Your task to perform on an android device: check google app version Image 0: 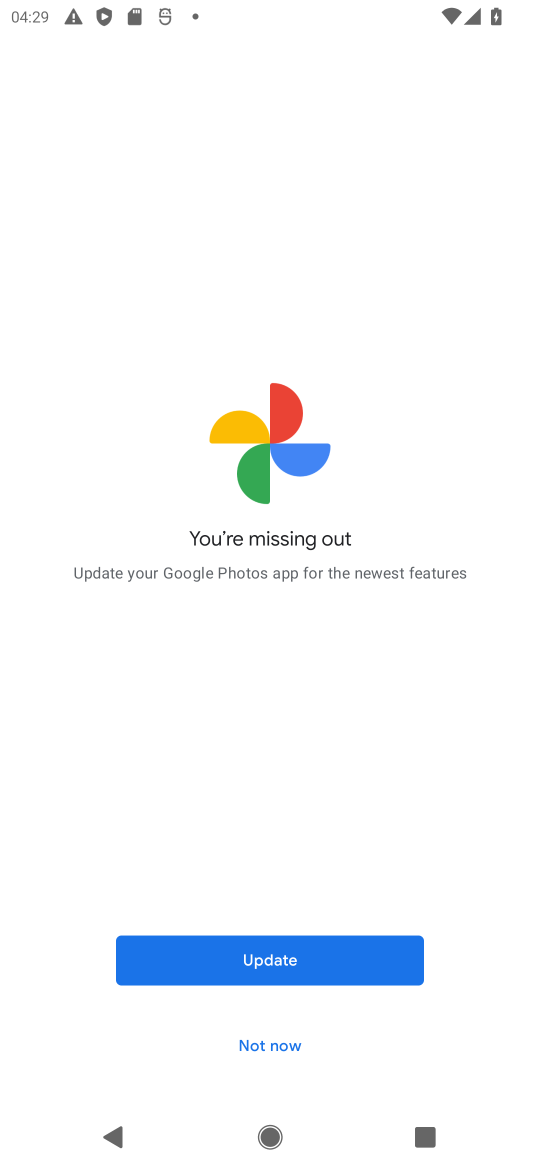
Step 0: press back button
Your task to perform on an android device: check google app version Image 1: 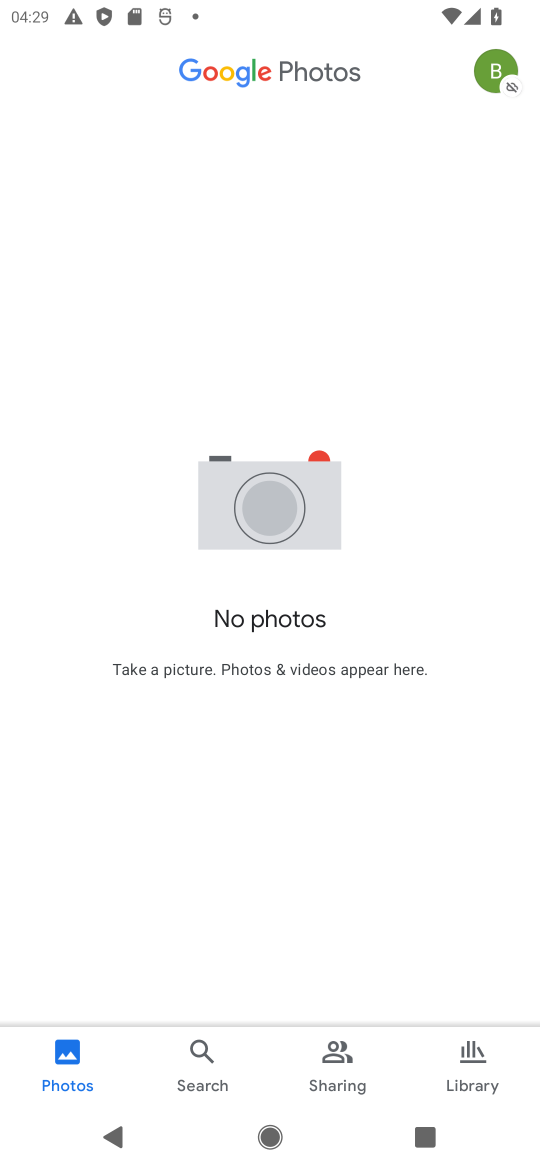
Step 1: press home button
Your task to perform on an android device: check google app version Image 2: 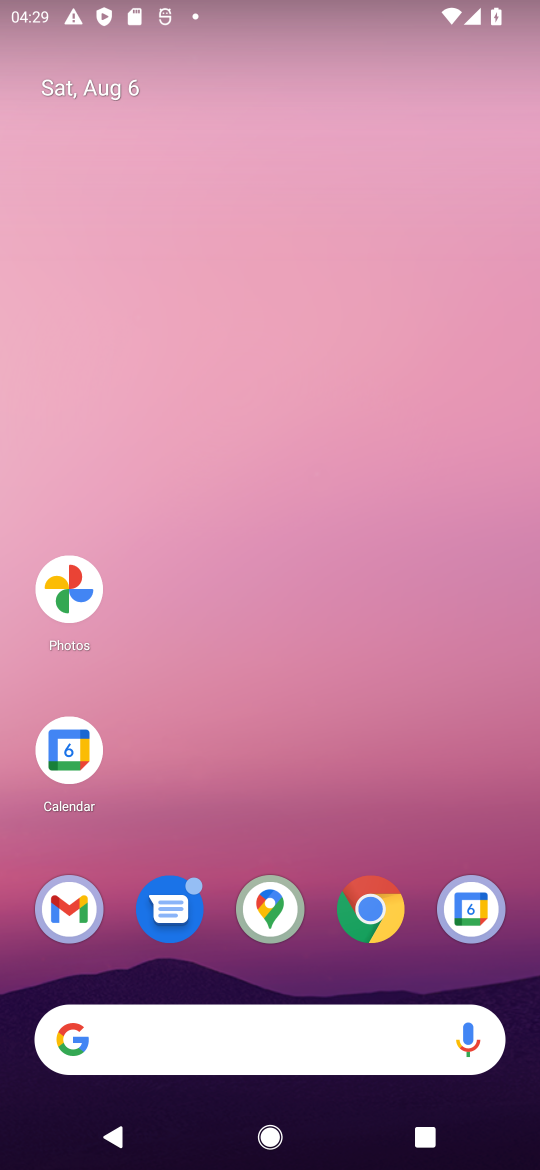
Step 2: click (66, 1031)
Your task to perform on an android device: check google app version Image 3: 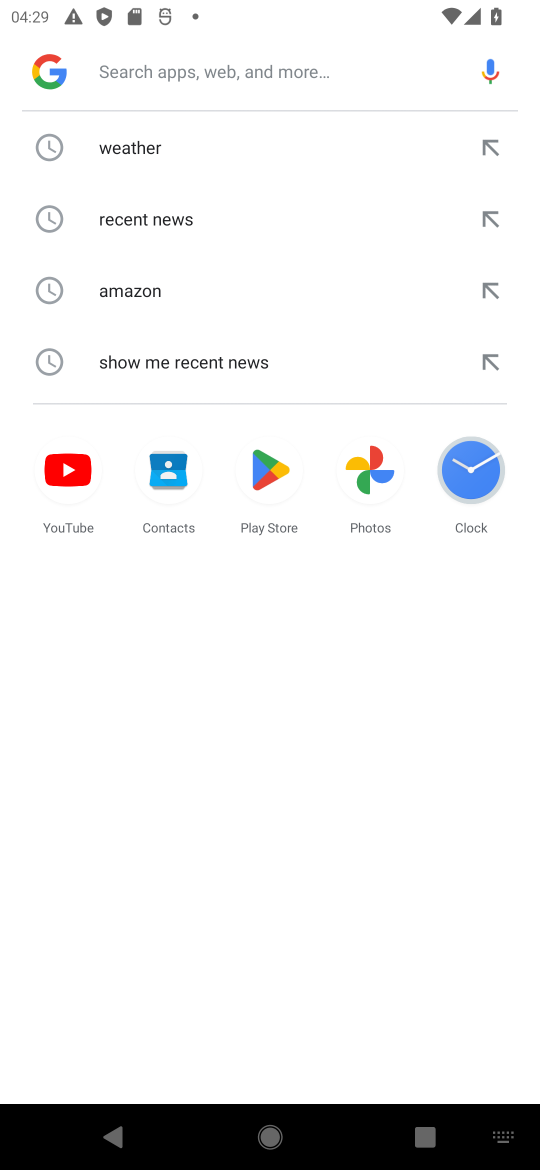
Step 3: click (46, 74)
Your task to perform on an android device: check google app version Image 4: 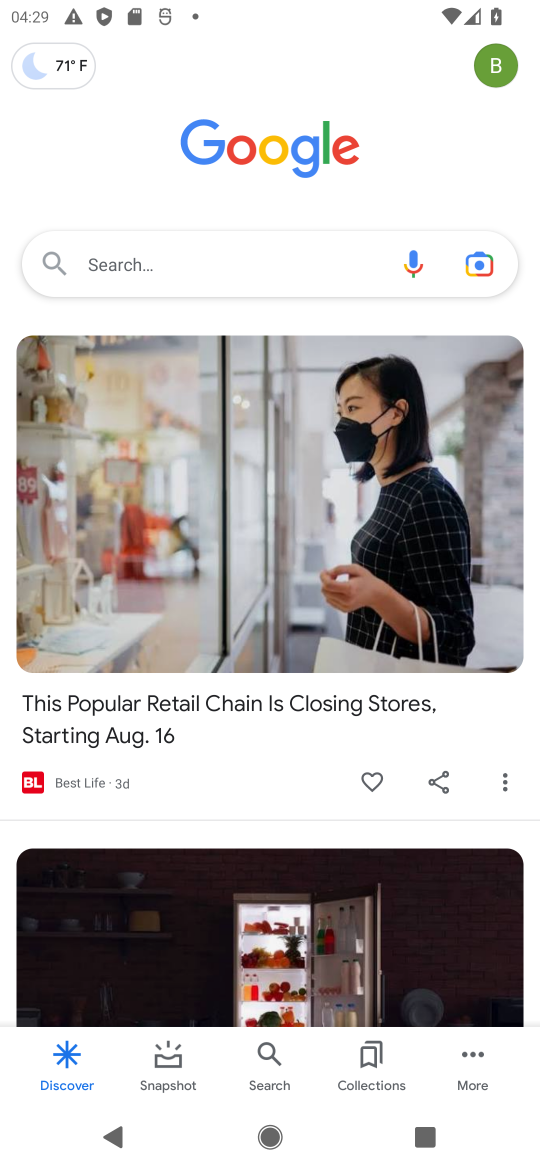
Step 4: click (475, 1050)
Your task to perform on an android device: check google app version Image 5: 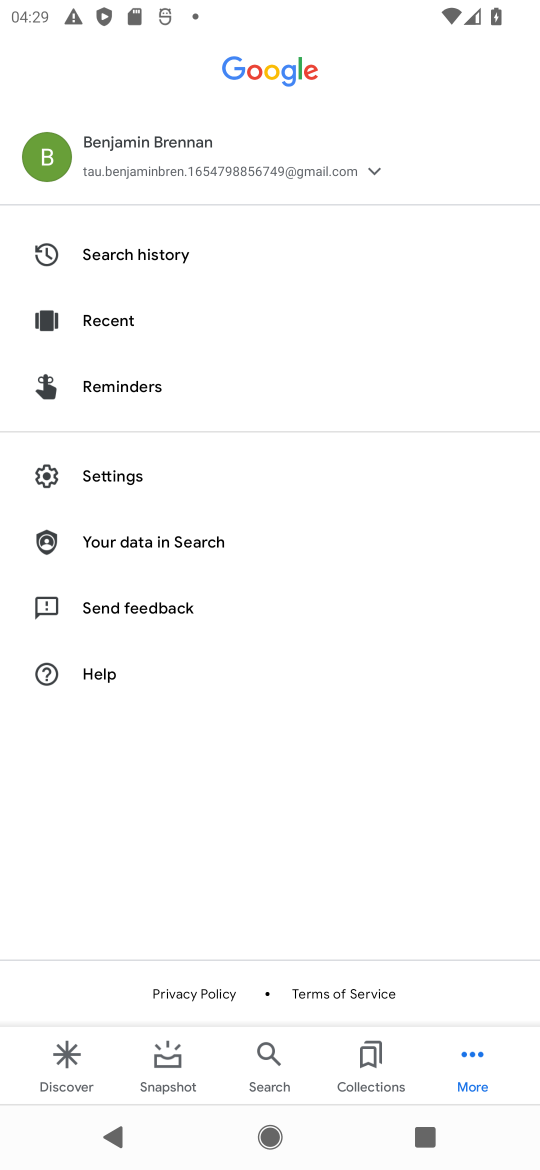
Step 5: click (108, 477)
Your task to perform on an android device: check google app version Image 6: 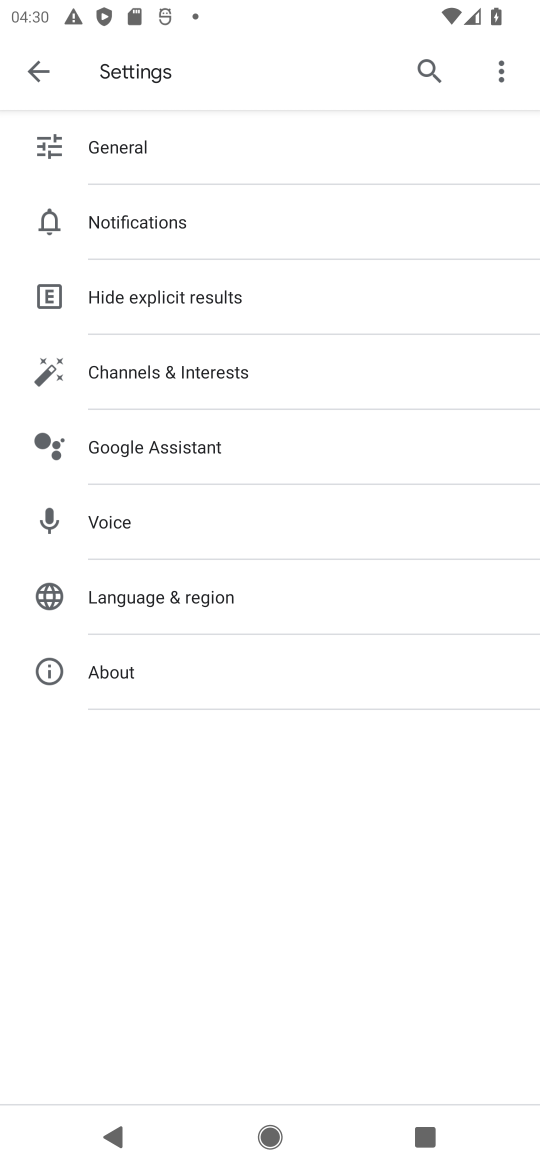
Step 6: click (101, 669)
Your task to perform on an android device: check google app version Image 7: 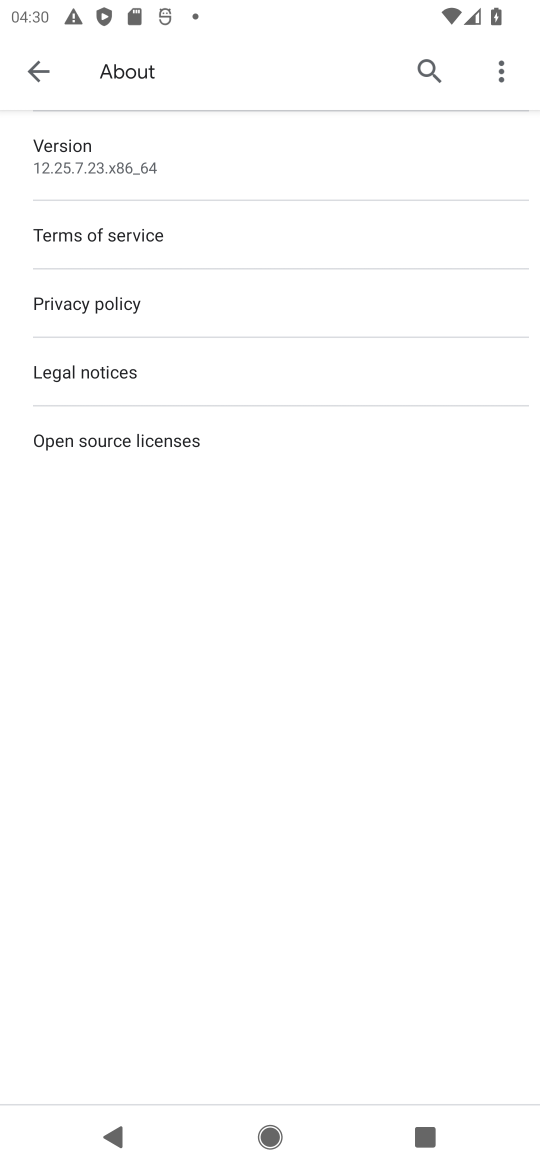
Step 7: task complete